Your task to perform on an android device: Play the last video I watched on Youtube Image 0: 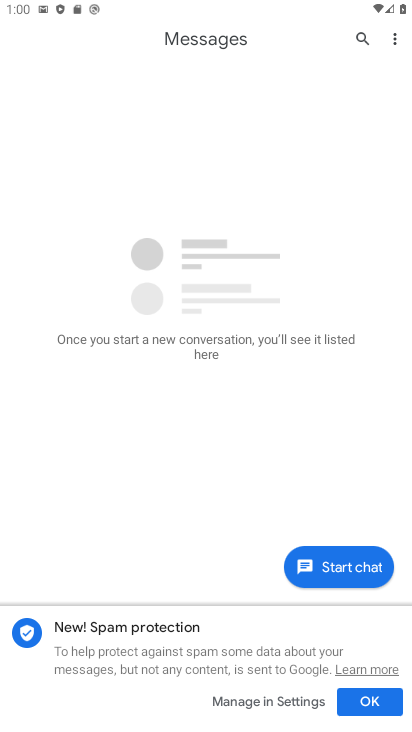
Step 0: press home button
Your task to perform on an android device: Play the last video I watched on Youtube Image 1: 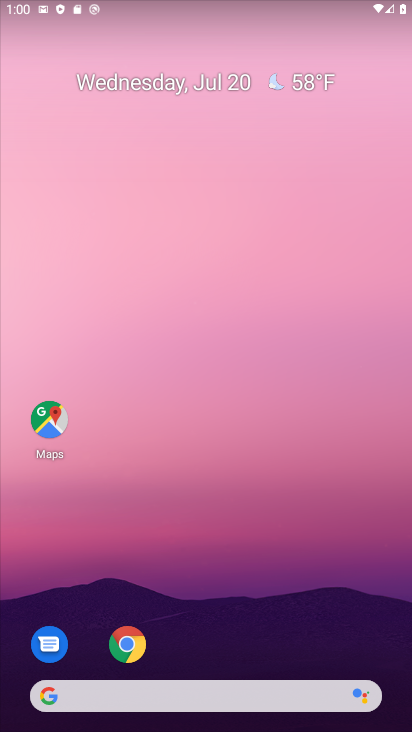
Step 1: drag from (224, 615) to (262, 155)
Your task to perform on an android device: Play the last video I watched on Youtube Image 2: 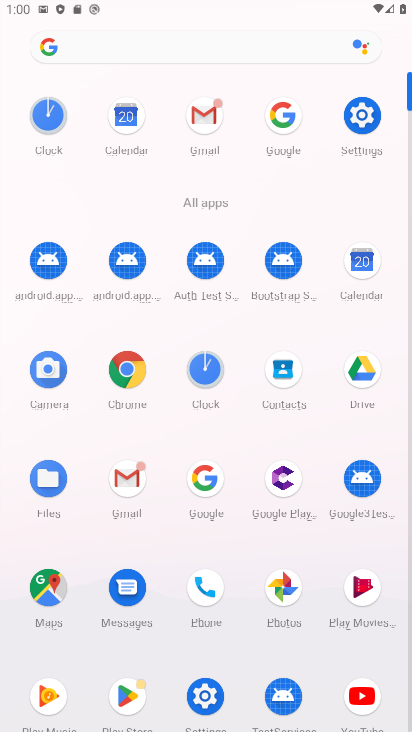
Step 2: click (364, 689)
Your task to perform on an android device: Play the last video I watched on Youtube Image 3: 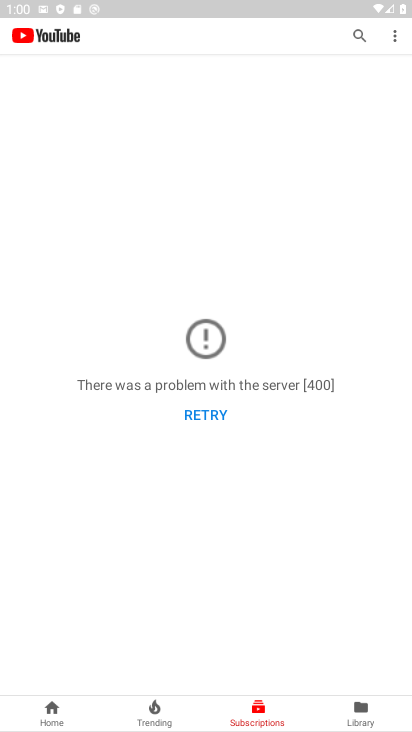
Step 3: click (353, 31)
Your task to perform on an android device: Play the last video I watched on Youtube Image 4: 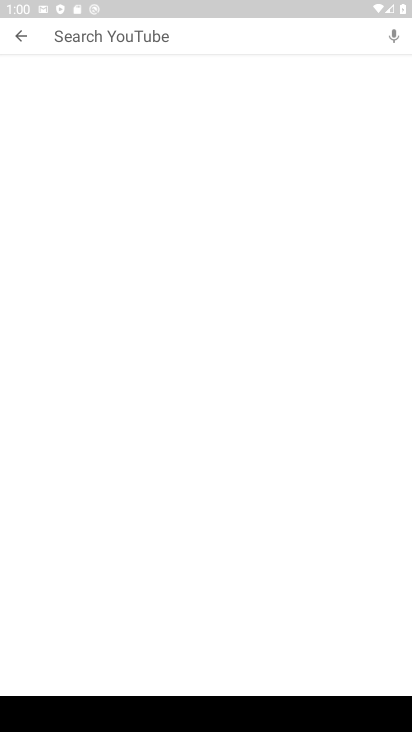
Step 4: task complete